Your task to perform on an android device: turn off wifi Image 0: 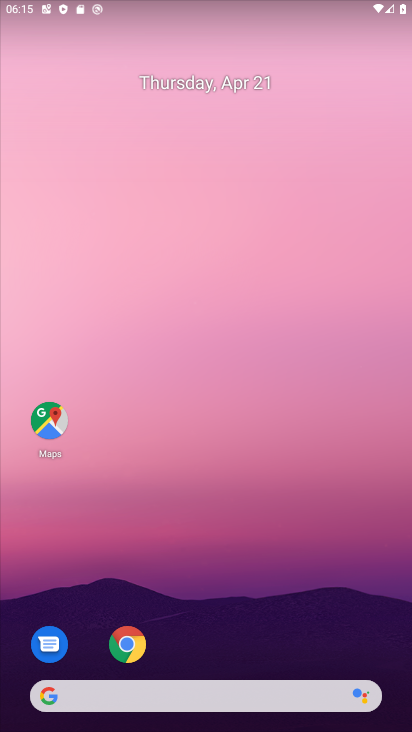
Step 0: drag from (282, 326) to (239, 22)
Your task to perform on an android device: turn off wifi Image 1: 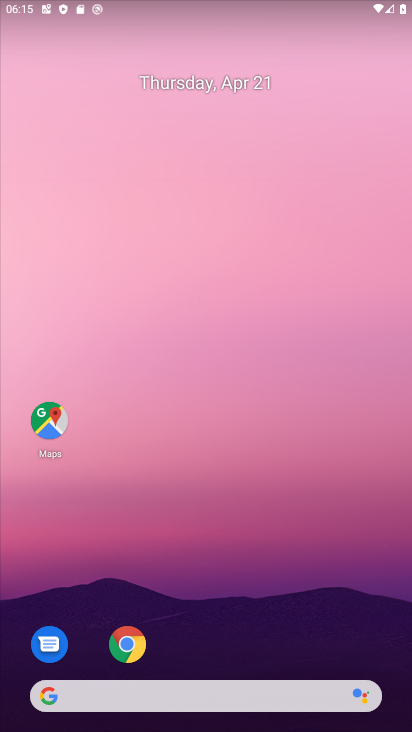
Step 1: drag from (261, 0) to (228, 315)
Your task to perform on an android device: turn off wifi Image 2: 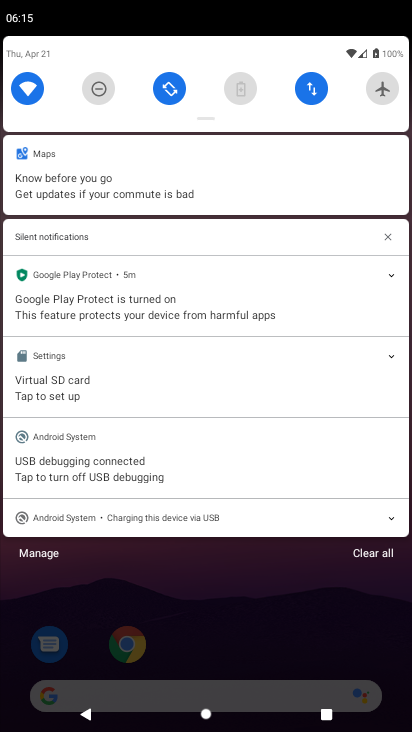
Step 2: drag from (202, 113) to (189, 224)
Your task to perform on an android device: turn off wifi Image 3: 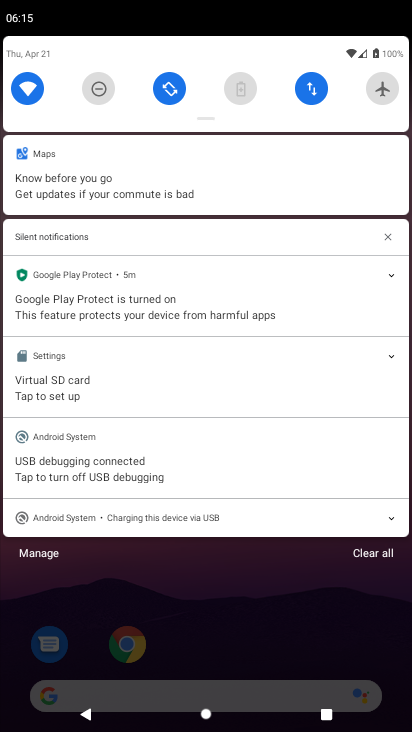
Step 3: click (225, 164)
Your task to perform on an android device: turn off wifi Image 4: 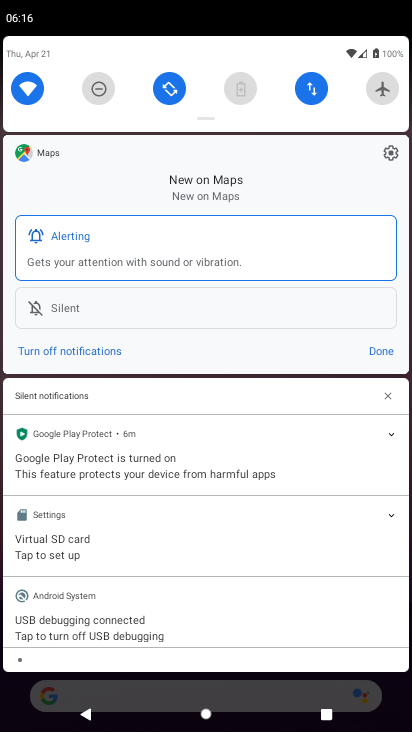
Step 4: click (35, 76)
Your task to perform on an android device: turn off wifi Image 5: 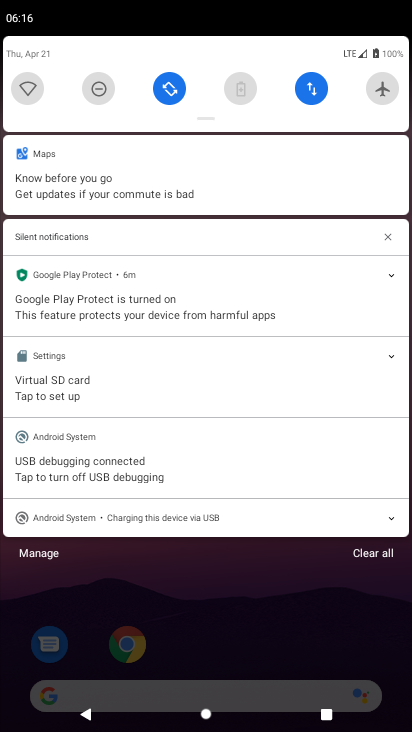
Step 5: task complete